Your task to perform on an android device: empty trash in google photos Image 0: 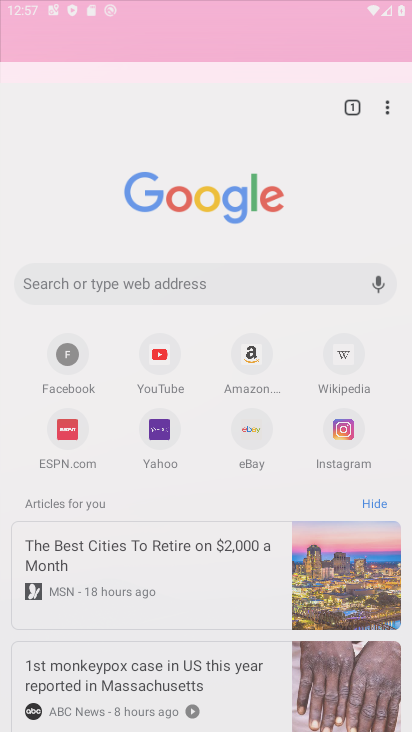
Step 0: click (393, 44)
Your task to perform on an android device: empty trash in google photos Image 1: 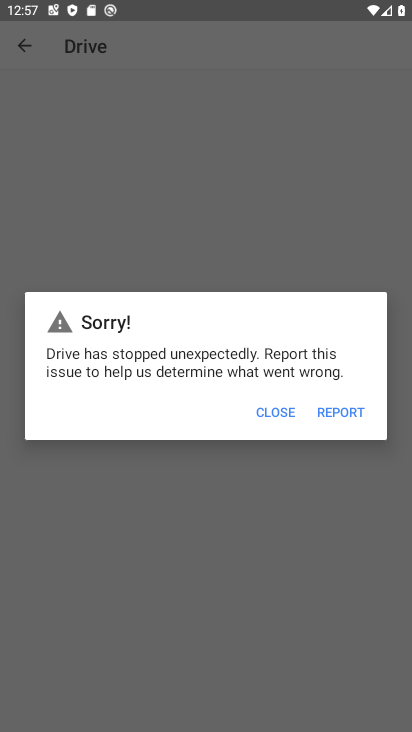
Step 1: press home button
Your task to perform on an android device: empty trash in google photos Image 2: 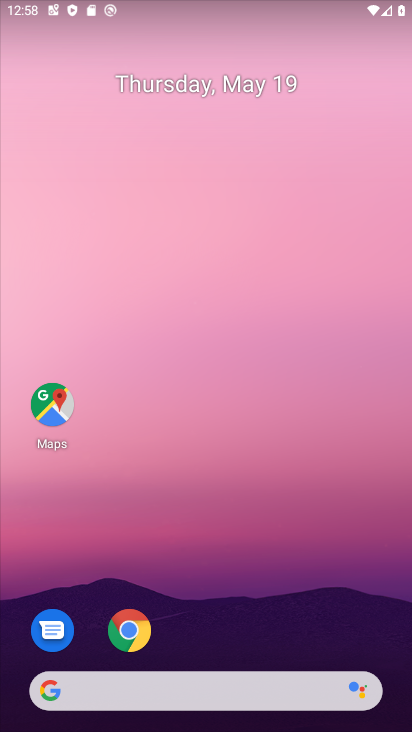
Step 2: drag from (178, 666) to (86, 134)
Your task to perform on an android device: empty trash in google photos Image 3: 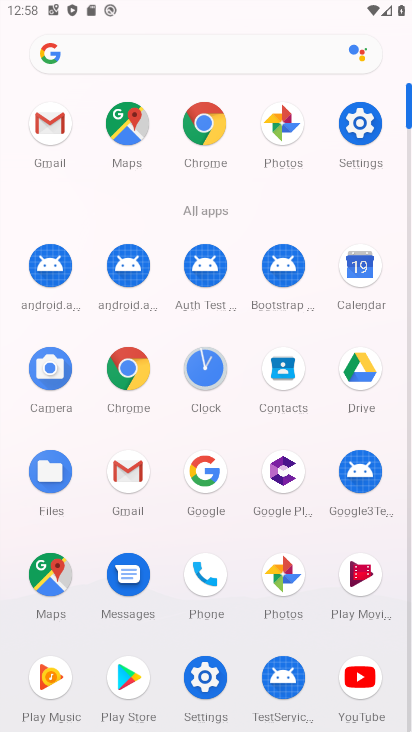
Step 3: click (268, 564)
Your task to perform on an android device: empty trash in google photos Image 4: 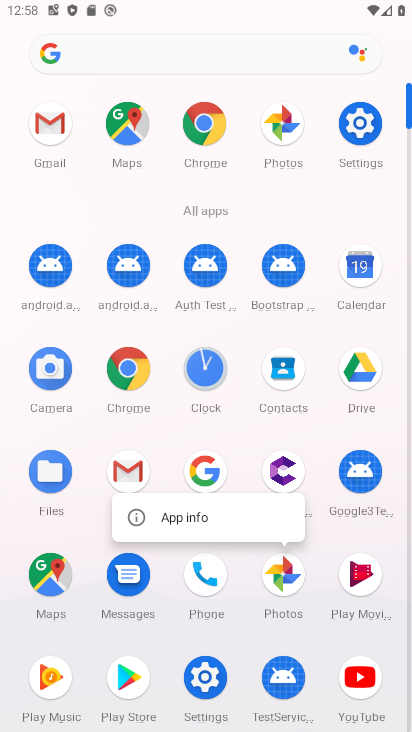
Step 4: click (292, 569)
Your task to perform on an android device: empty trash in google photos Image 5: 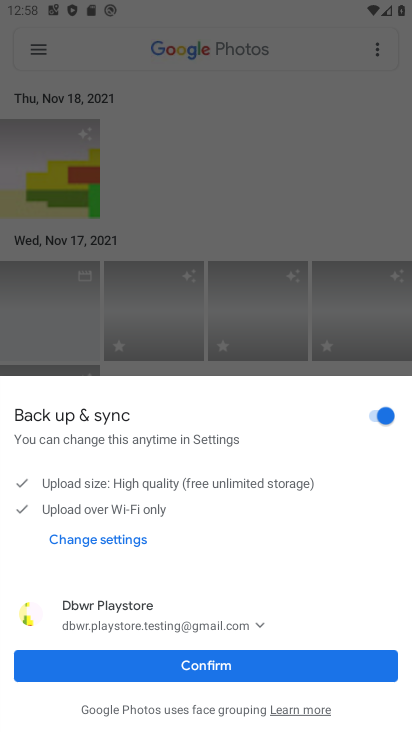
Step 5: click (209, 668)
Your task to perform on an android device: empty trash in google photos Image 6: 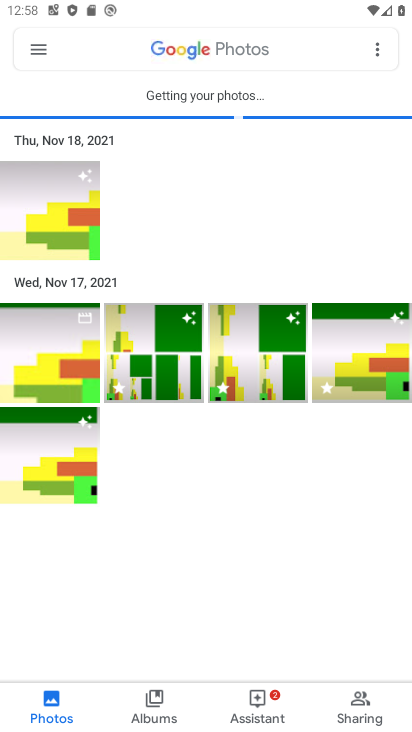
Step 6: click (36, 56)
Your task to perform on an android device: empty trash in google photos Image 7: 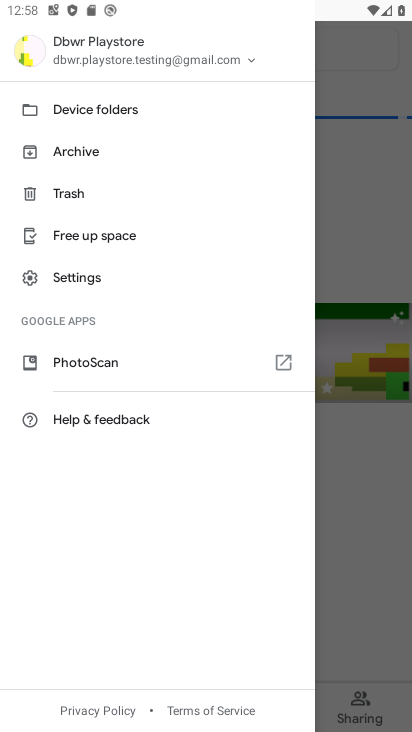
Step 7: click (55, 190)
Your task to perform on an android device: empty trash in google photos Image 8: 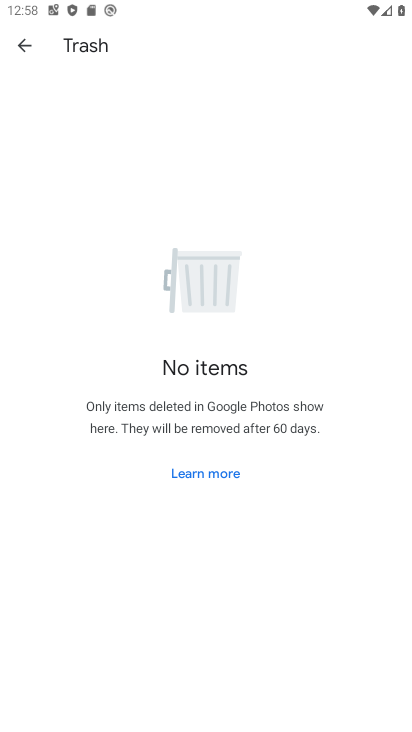
Step 8: task complete